Your task to perform on an android device: What's the weather going to be tomorrow? Image 0: 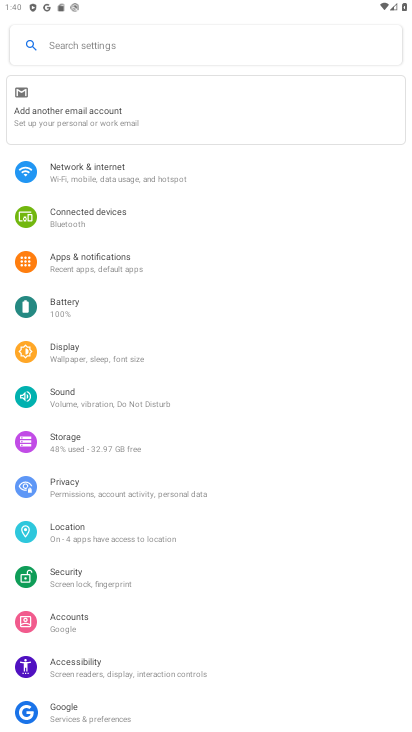
Step 0: press home button
Your task to perform on an android device: What's the weather going to be tomorrow? Image 1: 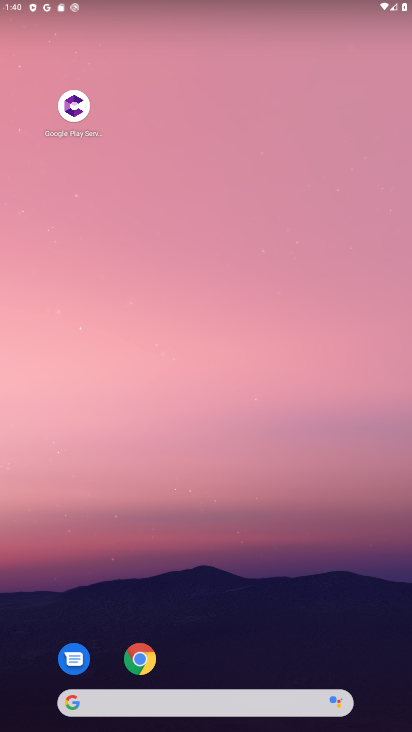
Step 1: drag from (60, 293) to (403, 279)
Your task to perform on an android device: What's the weather going to be tomorrow? Image 2: 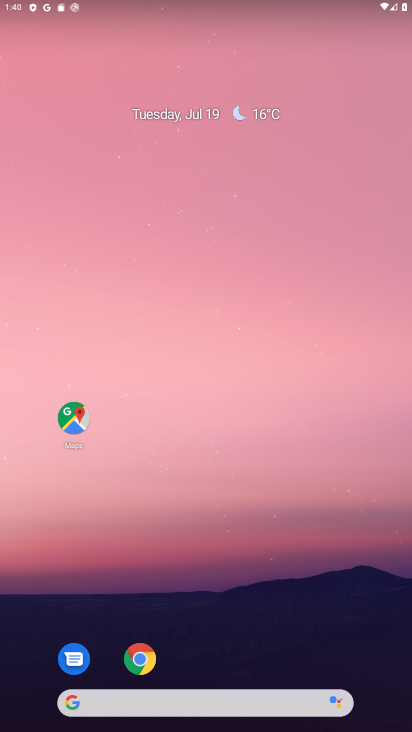
Step 2: click (246, 110)
Your task to perform on an android device: What's the weather going to be tomorrow? Image 3: 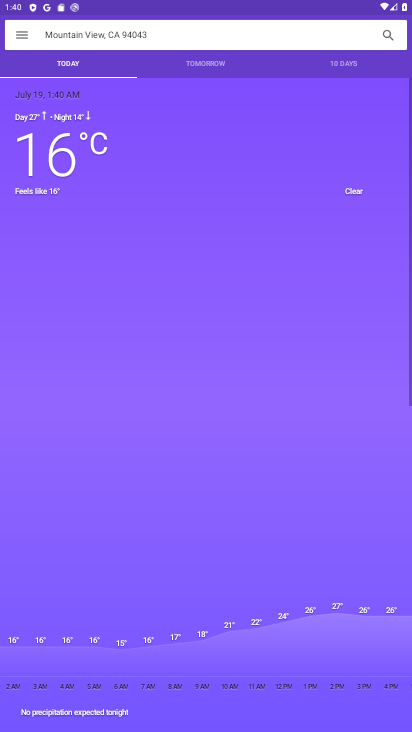
Step 3: click (223, 69)
Your task to perform on an android device: What's the weather going to be tomorrow? Image 4: 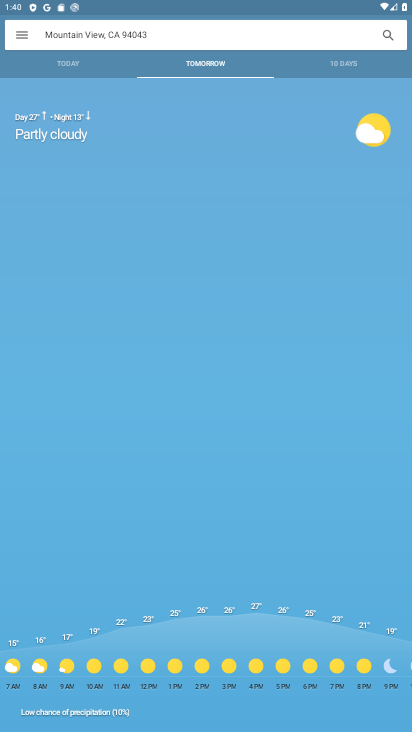
Step 4: task complete